Your task to perform on an android device: Open settings on Google Maps Image 0: 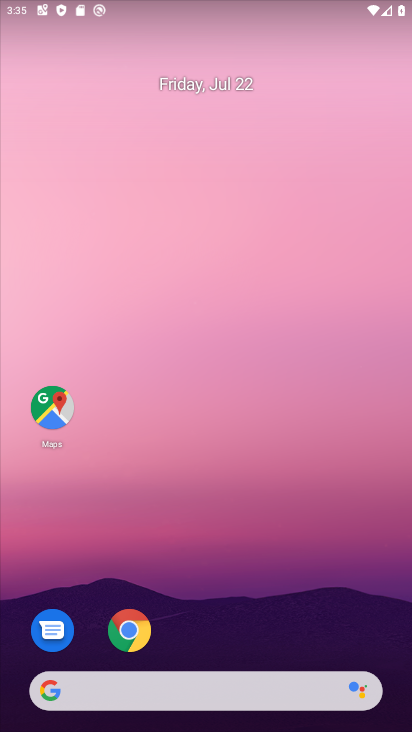
Step 0: task impossible